Your task to perform on an android device: open app "Google Keep" (install if not already installed) Image 0: 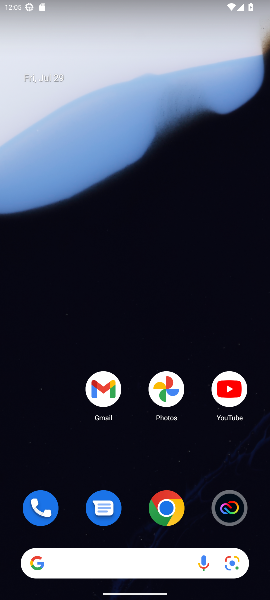
Step 0: drag from (97, 564) to (138, 28)
Your task to perform on an android device: open app "Google Keep" (install if not already installed) Image 1: 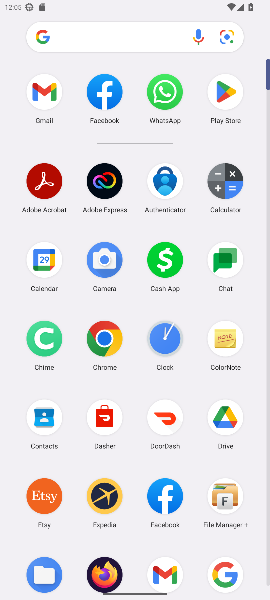
Step 1: click (225, 93)
Your task to perform on an android device: open app "Google Keep" (install if not already installed) Image 2: 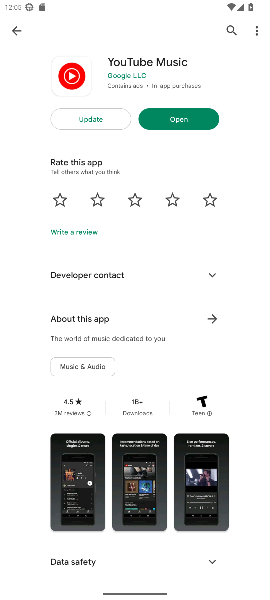
Step 2: click (230, 22)
Your task to perform on an android device: open app "Google Keep" (install if not already installed) Image 3: 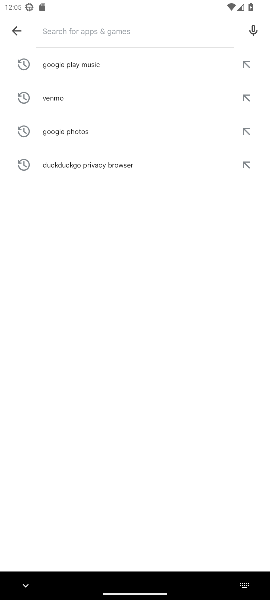
Step 3: type "google  keep"
Your task to perform on an android device: open app "Google Keep" (install if not already installed) Image 4: 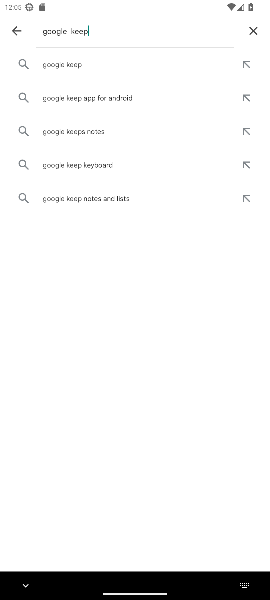
Step 4: click (93, 68)
Your task to perform on an android device: open app "Google Keep" (install if not already installed) Image 5: 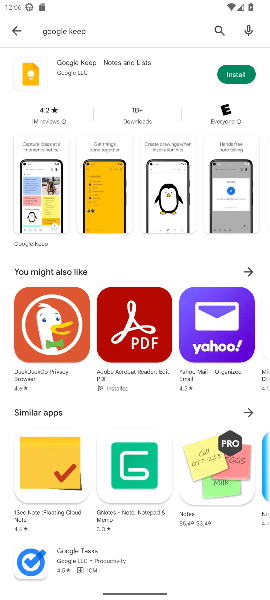
Step 5: click (242, 75)
Your task to perform on an android device: open app "Google Keep" (install if not already installed) Image 6: 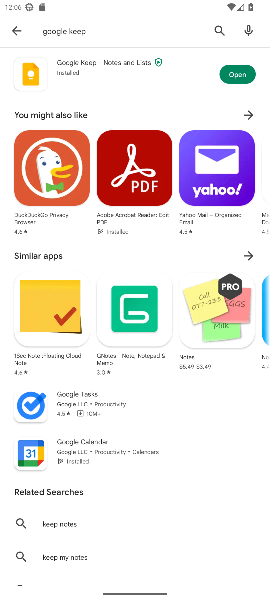
Step 6: click (244, 74)
Your task to perform on an android device: open app "Google Keep" (install if not already installed) Image 7: 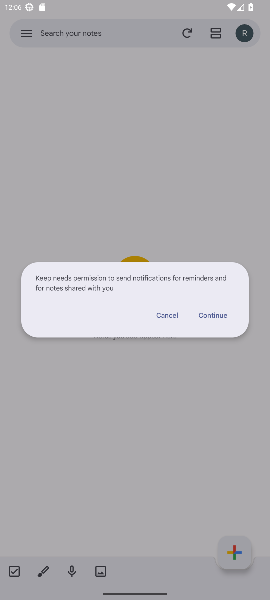
Step 7: task complete